Your task to perform on an android device: Search for a storage ottoman in the living room Image 0: 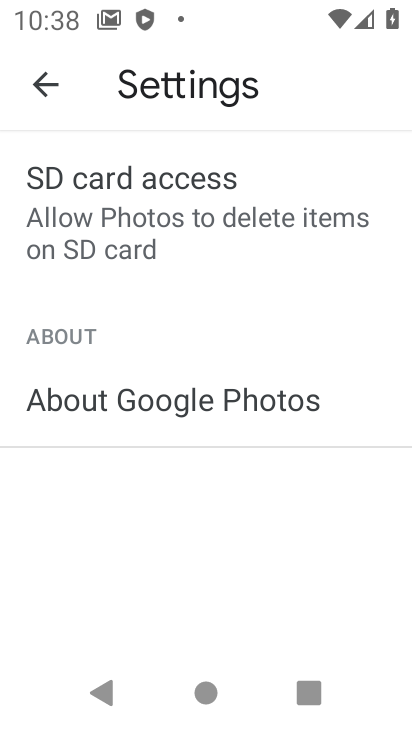
Step 0: press home button
Your task to perform on an android device: Search for a storage ottoman in the living room Image 1: 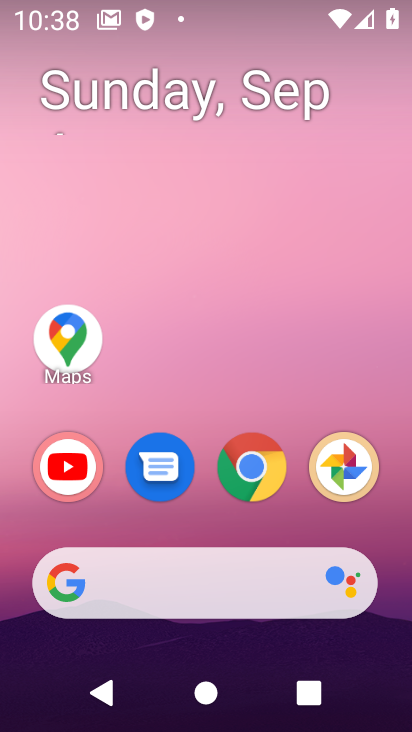
Step 1: click (248, 465)
Your task to perform on an android device: Search for a storage ottoman in the living room Image 2: 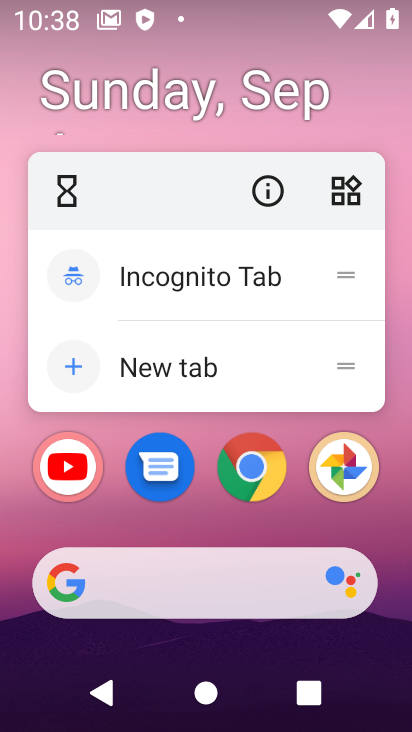
Step 2: click (249, 484)
Your task to perform on an android device: Search for a storage ottoman in the living room Image 3: 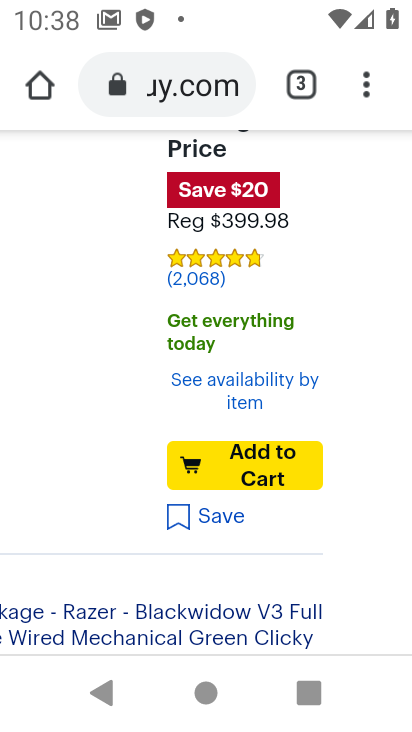
Step 3: click (161, 92)
Your task to perform on an android device: Search for a storage ottoman in the living room Image 4: 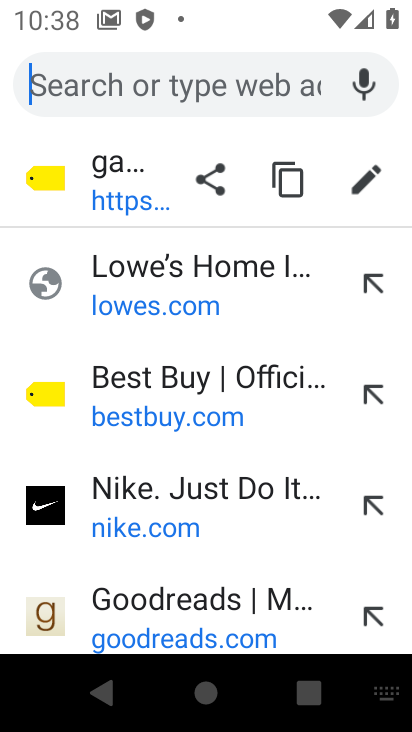
Step 4: type "storage ottoman in living room"
Your task to perform on an android device: Search for a storage ottoman in the living room Image 5: 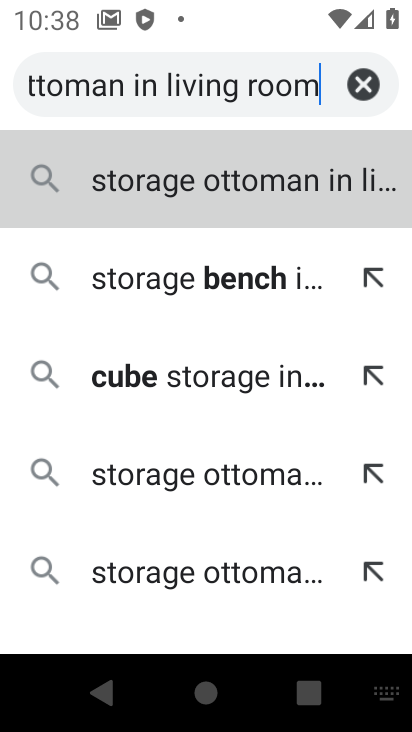
Step 5: click (124, 204)
Your task to perform on an android device: Search for a storage ottoman in the living room Image 6: 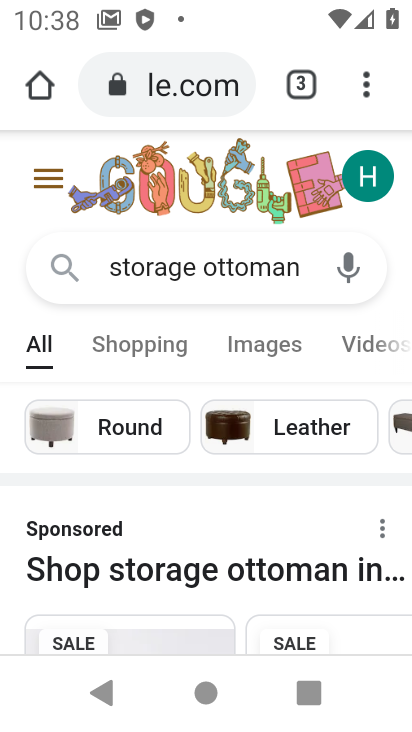
Step 6: drag from (407, 533) to (402, 570)
Your task to perform on an android device: Search for a storage ottoman in the living room Image 7: 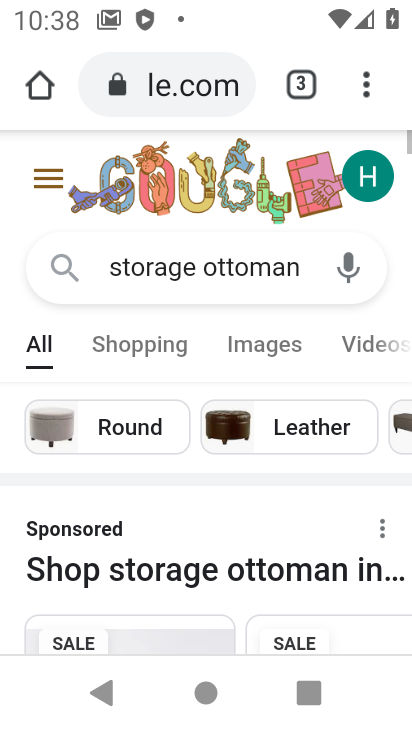
Step 7: drag from (373, 571) to (360, 383)
Your task to perform on an android device: Search for a storage ottoman in the living room Image 8: 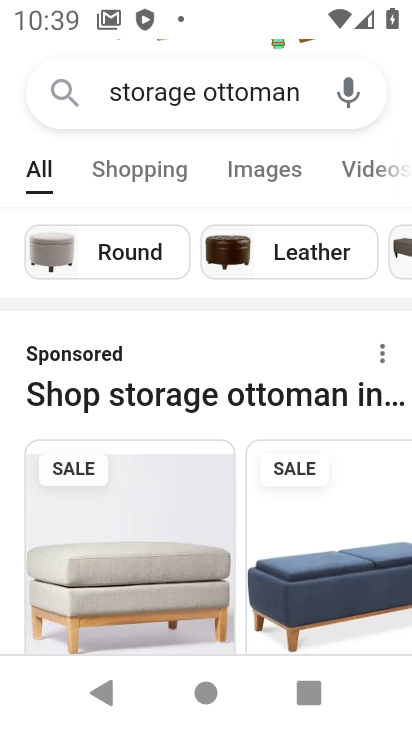
Step 8: drag from (404, 620) to (401, 269)
Your task to perform on an android device: Search for a storage ottoman in the living room Image 9: 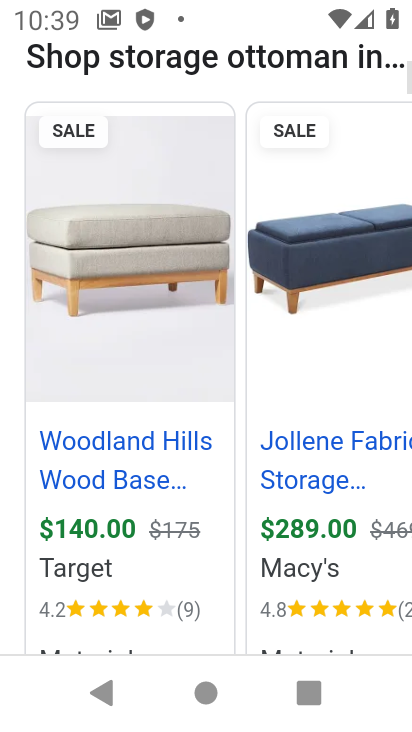
Step 9: drag from (363, 412) to (348, 157)
Your task to perform on an android device: Search for a storage ottoman in the living room Image 10: 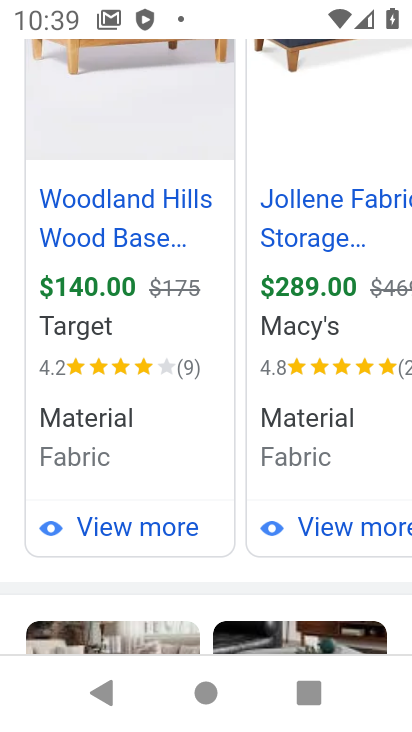
Step 10: drag from (323, 541) to (363, 214)
Your task to perform on an android device: Search for a storage ottoman in the living room Image 11: 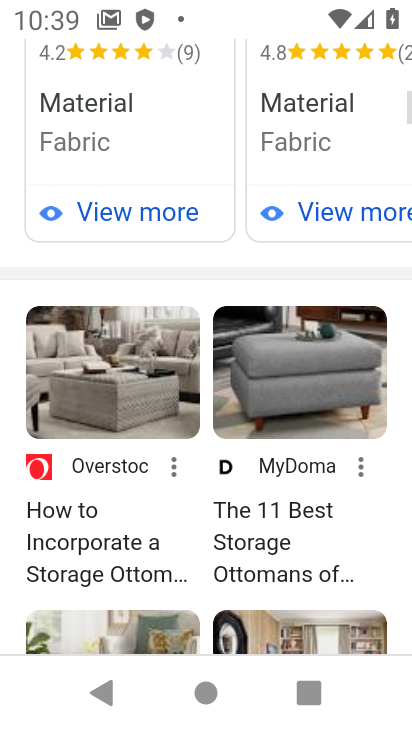
Step 11: drag from (301, 503) to (349, 288)
Your task to perform on an android device: Search for a storage ottoman in the living room Image 12: 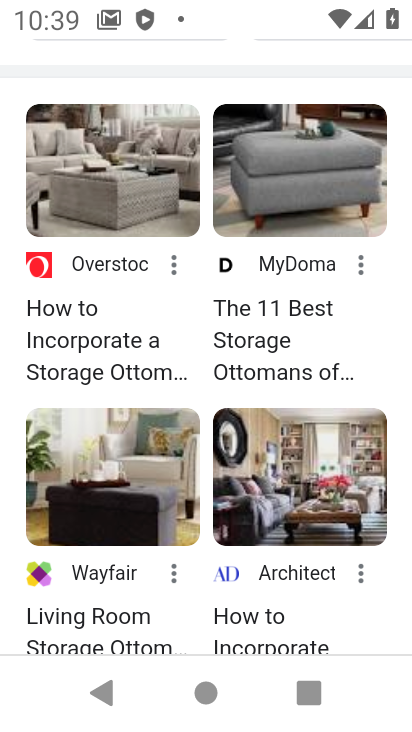
Step 12: drag from (326, 542) to (323, 371)
Your task to perform on an android device: Search for a storage ottoman in the living room Image 13: 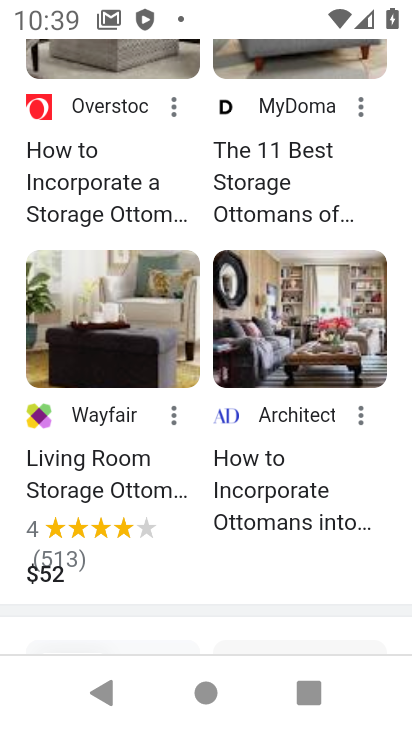
Step 13: click (104, 337)
Your task to perform on an android device: Search for a storage ottoman in the living room Image 14: 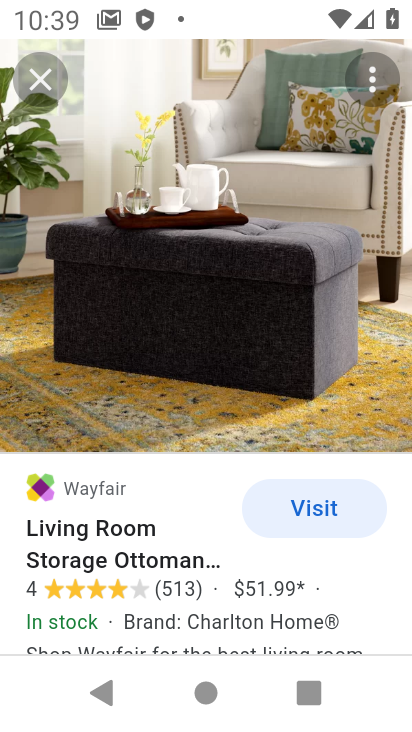
Step 14: task complete